Your task to perform on an android device: Search for Italian restaurants on Maps Image 0: 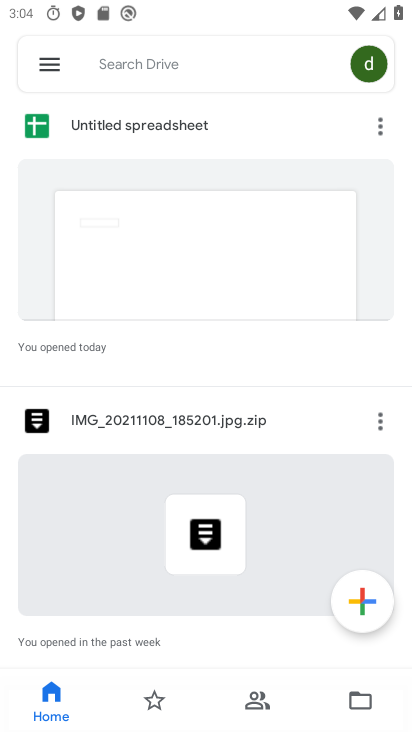
Step 0: press back button
Your task to perform on an android device: Search for Italian restaurants on Maps Image 1: 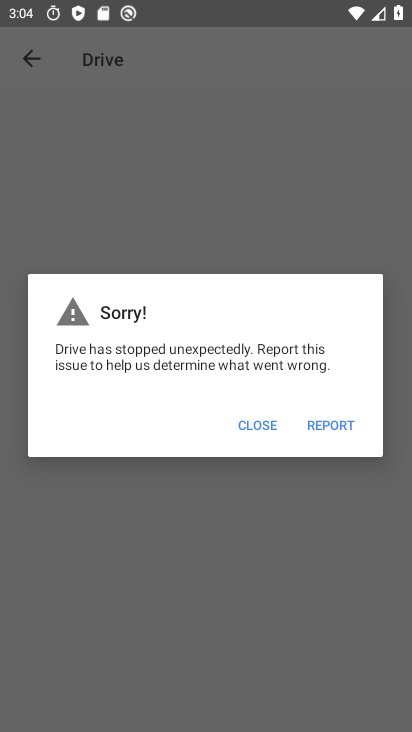
Step 1: press home button
Your task to perform on an android device: Search for Italian restaurants on Maps Image 2: 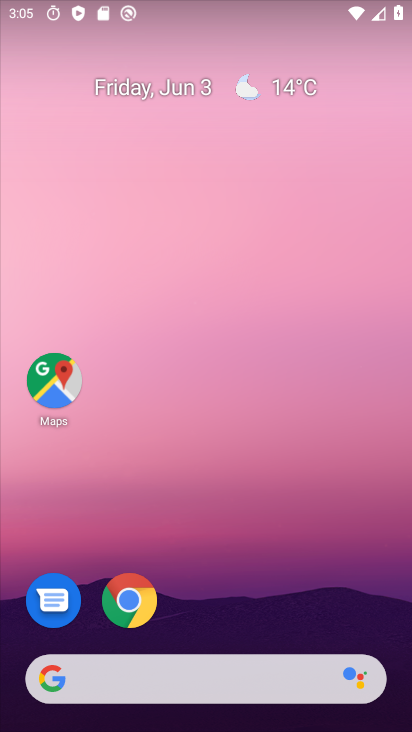
Step 2: drag from (233, 573) to (247, 25)
Your task to perform on an android device: Search for Italian restaurants on Maps Image 3: 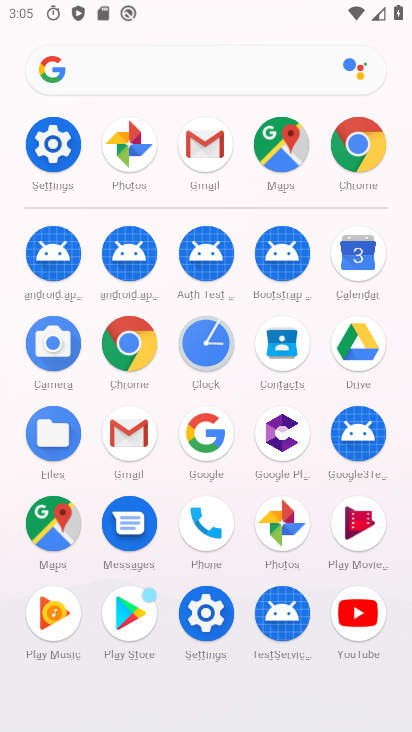
Step 3: click (276, 141)
Your task to perform on an android device: Search for Italian restaurants on Maps Image 4: 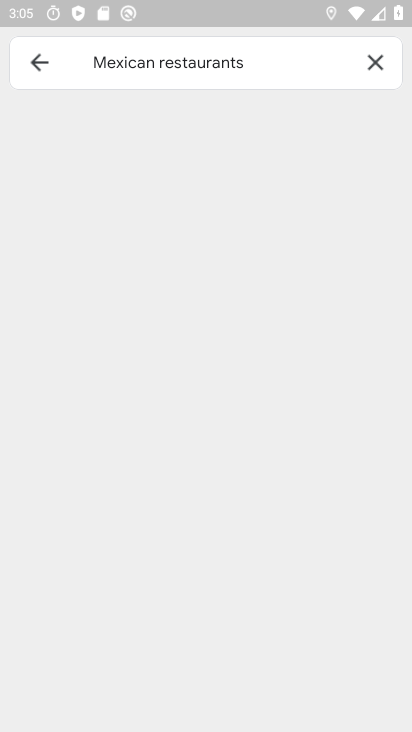
Step 4: click (378, 59)
Your task to perform on an android device: Search for Italian restaurants on Maps Image 5: 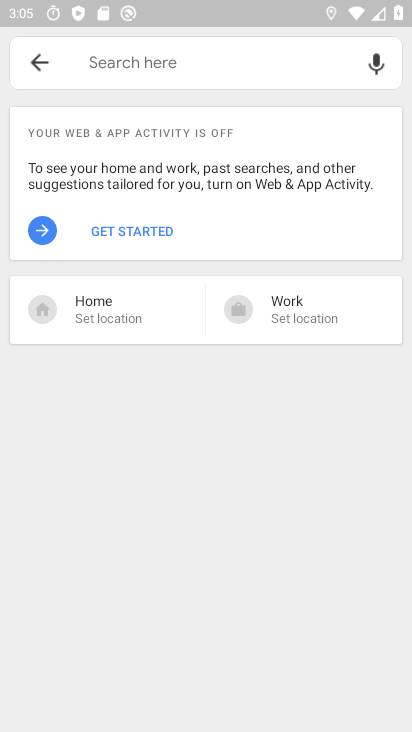
Step 5: click (39, 52)
Your task to perform on an android device: Search for Italian restaurants on Maps Image 6: 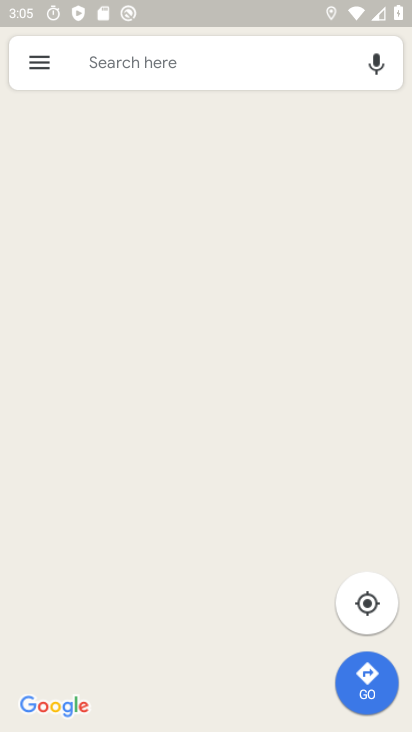
Step 6: task complete